Your task to perform on an android device: add a contact in the contacts app Image 0: 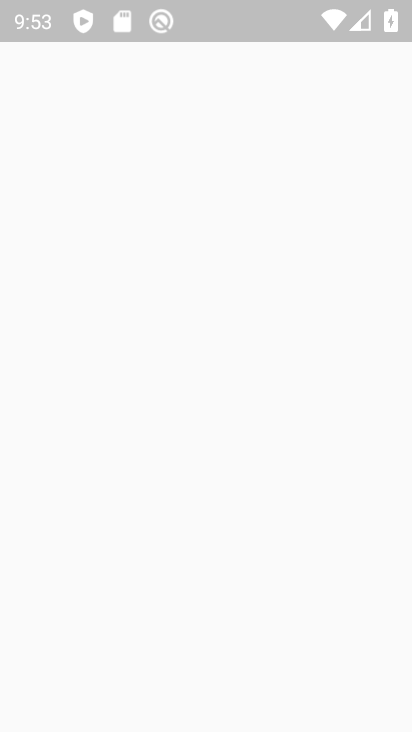
Step 0: press back button
Your task to perform on an android device: add a contact in the contacts app Image 1: 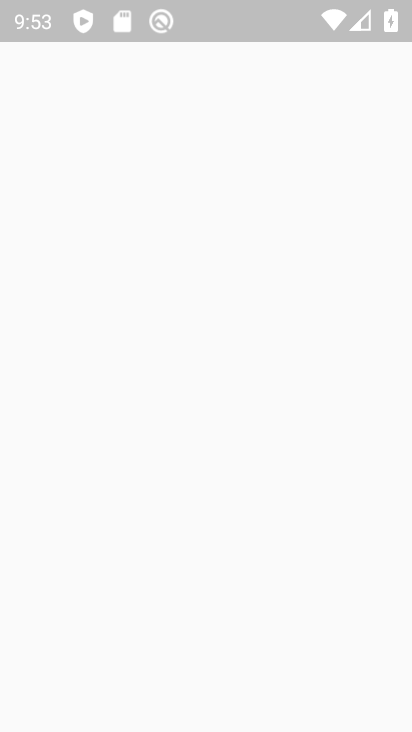
Step 1: press back button
Your task to perform on an android device: add a contact in the contacts app Image 2: 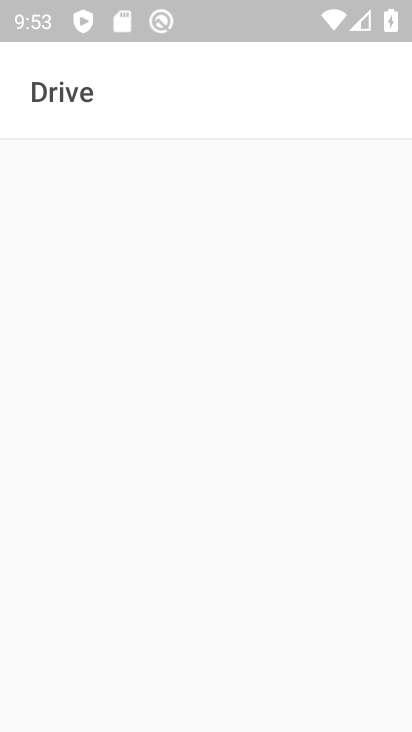
Step 2: press back button
Your task to perform on an android device: add a contact in the contacts app Image 3: 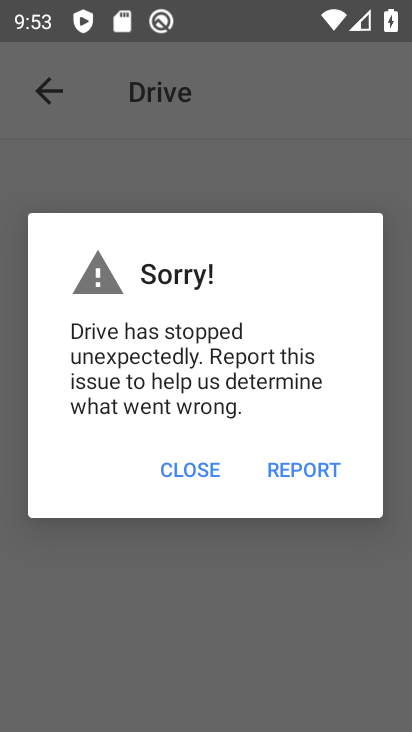
Step 3: click (209, 467)
Your task to perform on an android device: add a contact in the contacts app Image 4: 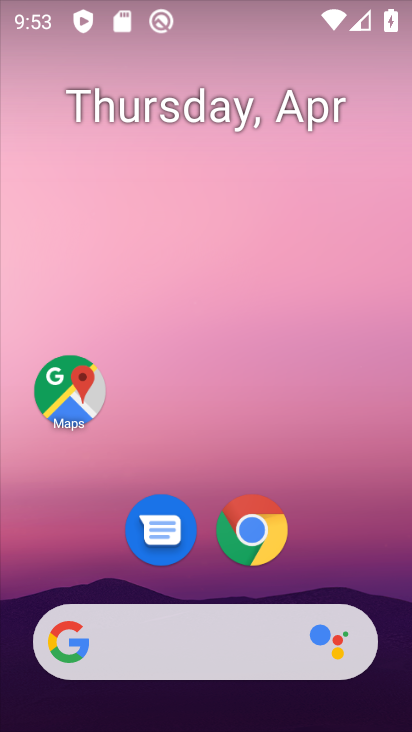
Step 4: drag from (177, 573) to (321, 12)
Your task to perform on an android device: add a contact in the contacts app Image 5: 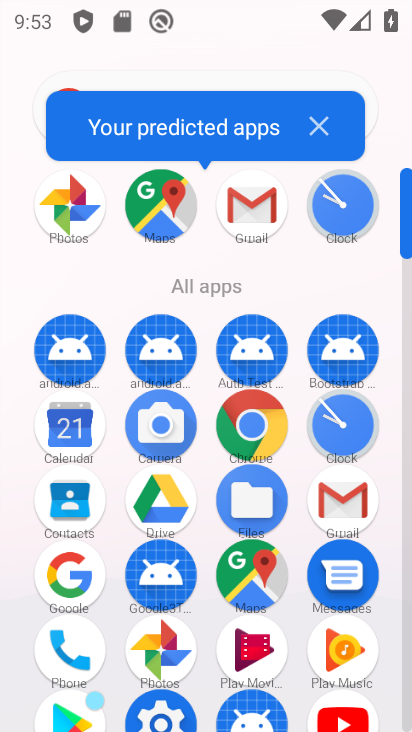
Step 5: click (80, 510)
Your task to perform on an android device: add a contact in the contacts app Image 6: 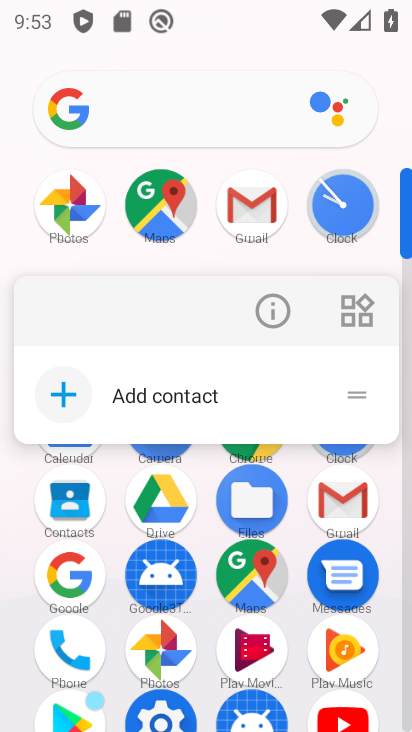
Step 6: click (71, 497)
Your task to perform on an android device: add a contact in the contacts app Image 7: 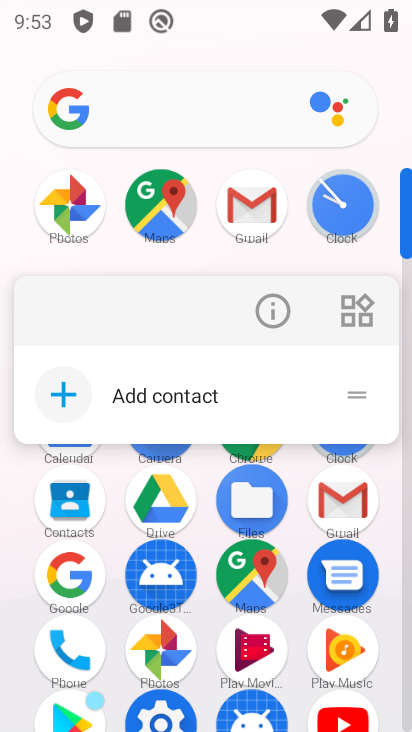
Step 7: click (71, 494)
Your task to perform on an android device: add a contact in the contacts app Image 8: 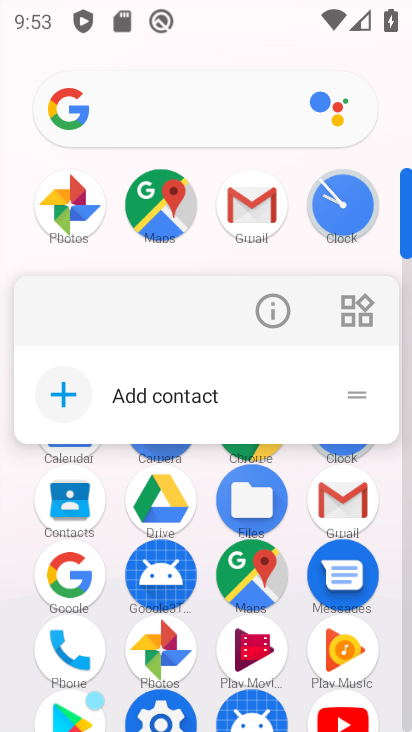
Step 8: click (72, 523)
Your task to perform on an android device: add a contact in the contacts app Image 9: 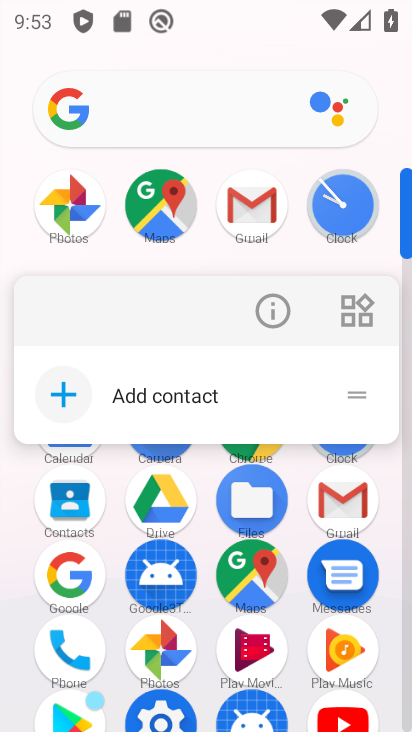
Step 9: click (53, 506)
Your task to perform on an android device: add a contact in the contacts app Image 10: 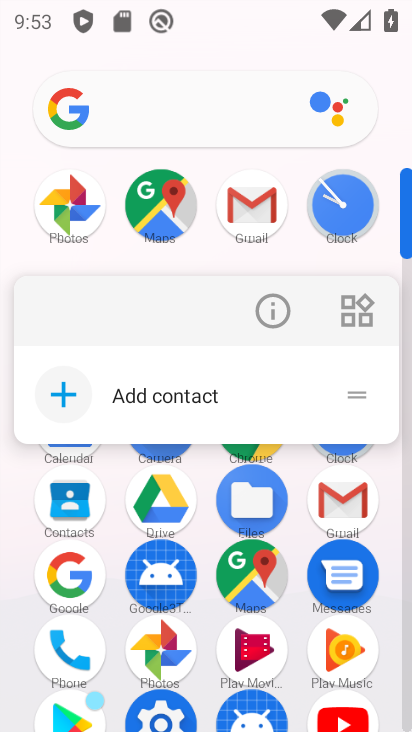
Step 10: click (62, 499)
Your task to perform on an android device: add a contact in the contacts app Image 11: 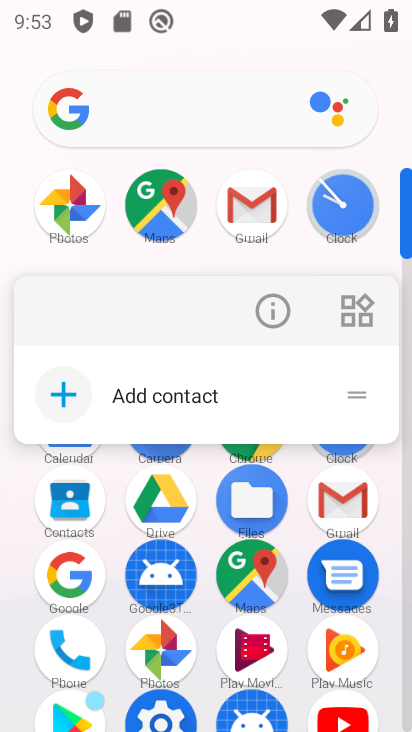
Step 11: click (63, 511)
Your task to perform on an android device: add a contact in the contacts app Image 12: 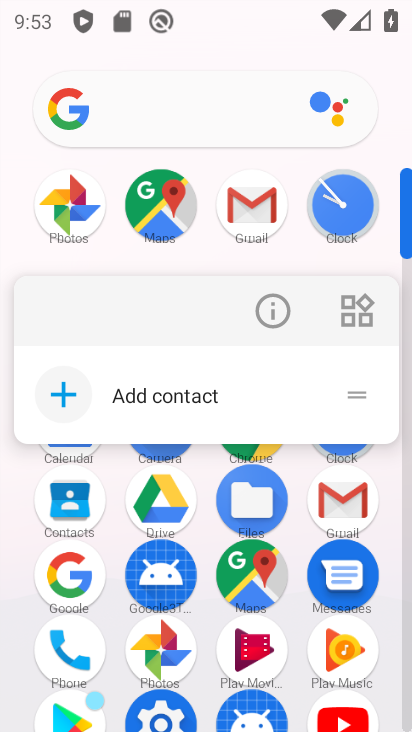
Step 12: click (94, 515)
Your task to perform on an android device: add a contact in the contacts app Image 13: 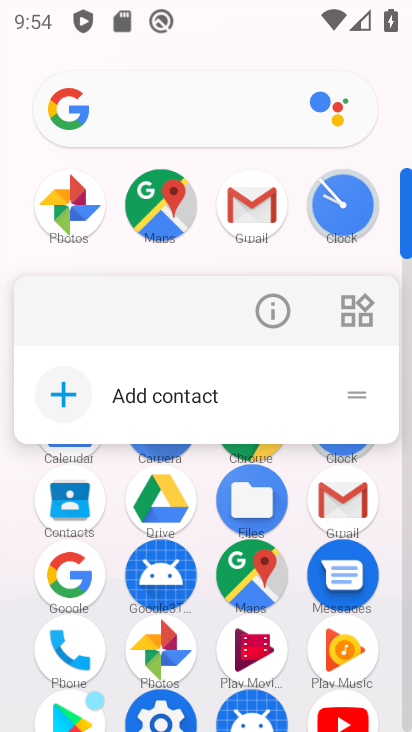
Step 13: click (90, 512)
Your task to perform on an android device: add a contact in the contacts app Image 14: 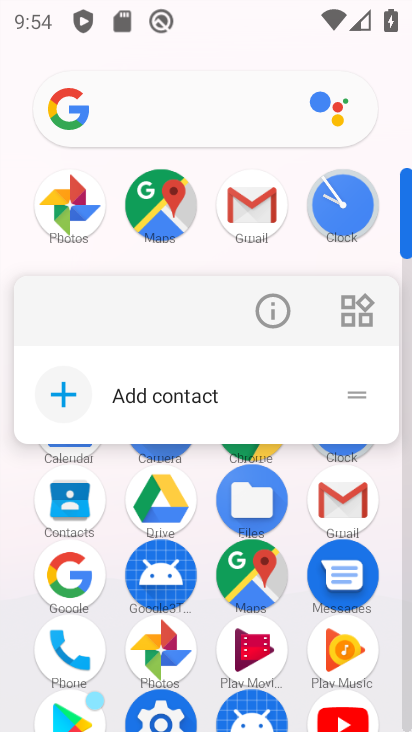
Step 14: click (95, 490)
Your task to perform on an android device: add a contact in the contacts app Image 15: 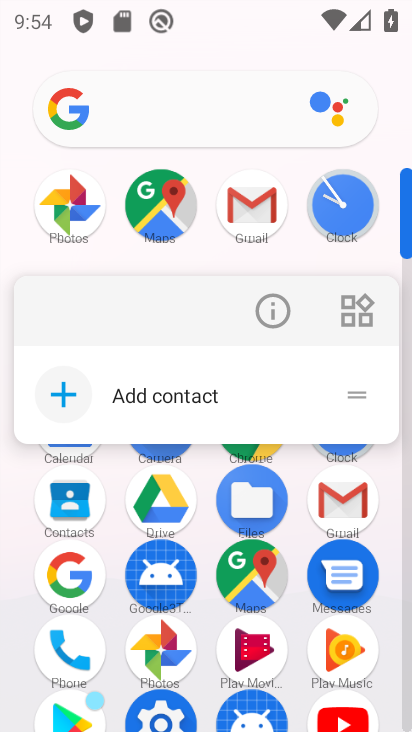
Step 15: click (80, 475)
Your task to perform on an android device: add a contact in the contacts app Image 16: 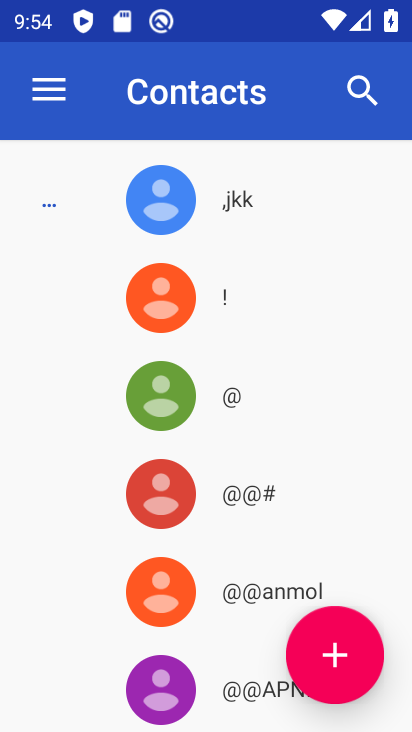
Step 16: click (308, 649)
Your task to perform on an android device: add a contact in the contacts app Image 17: 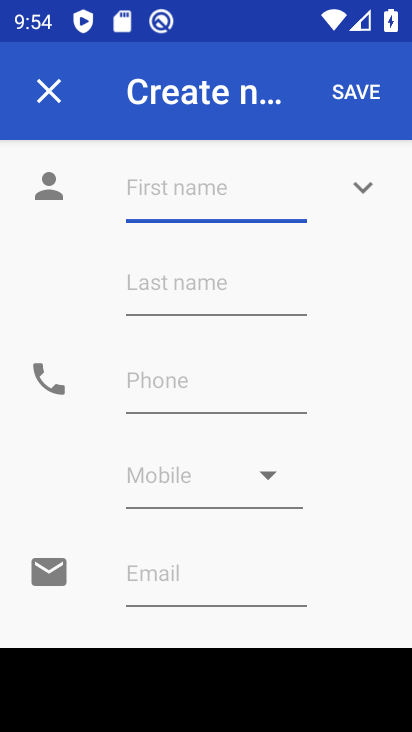
Step 17: type "penny "
Your task to perform on an android device: add a contact in the contacts app Image 18: 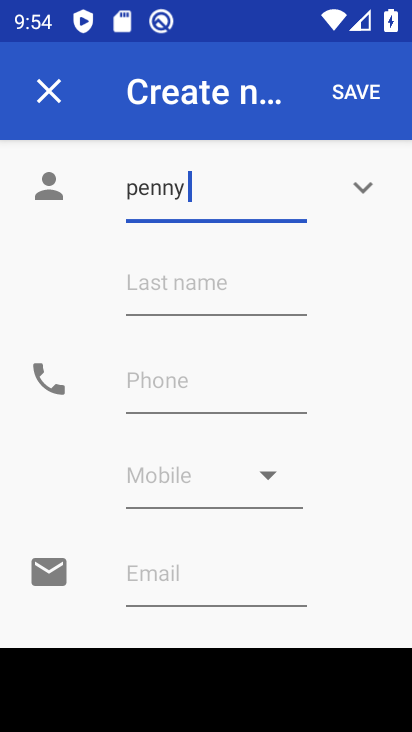
Step 18: click (179, 375)
Your task to perform on an android device: add a contact in the contacts app Image 19: 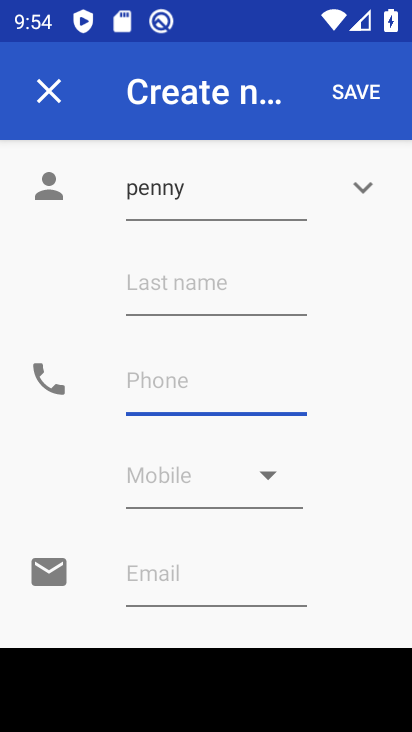
Step 19: type "2822321211"
Your task to perform on an android device: add a contact in the contacts app Image 20: 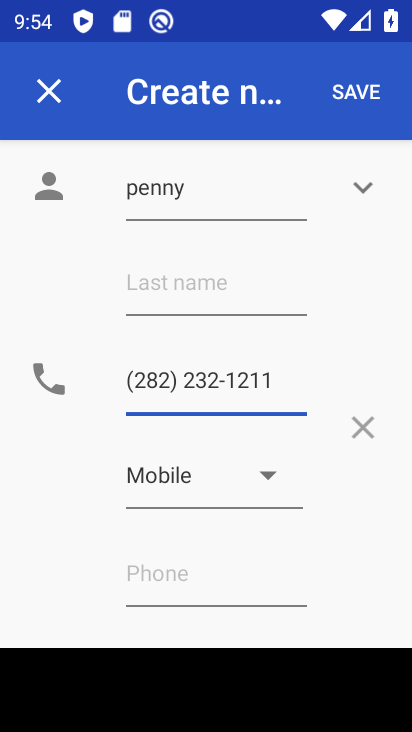
Step 20: click (366, 90)
Your task to perform on an android device: add a contact in the contacts app Image 21: 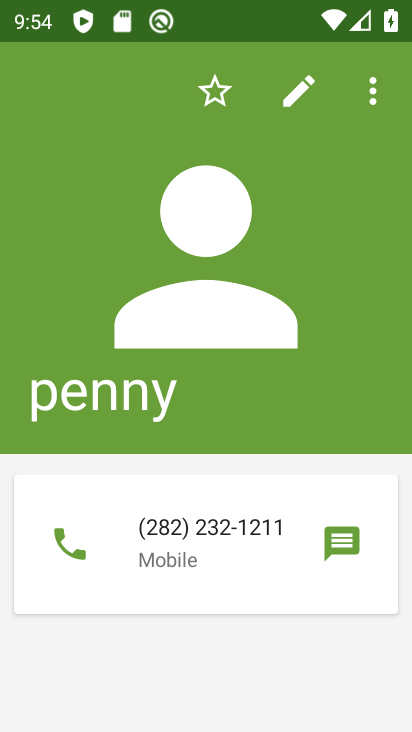
Step 21: task complete